Your task to perform on an android device: Go to ESPN.com Image 0: 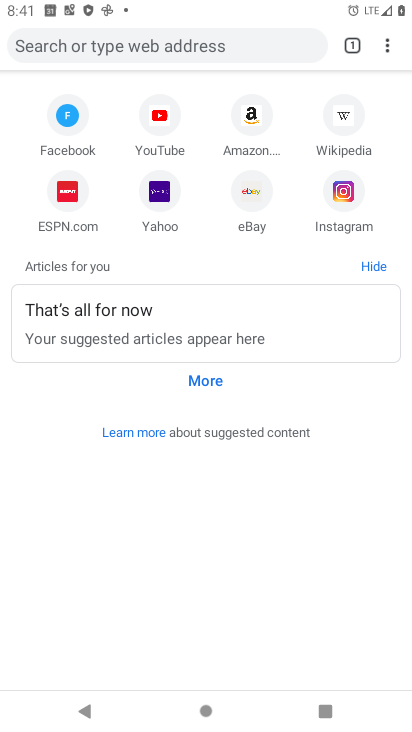
Step 0: press home button
Your task to perform on an android device: Go to ESPN.com Image 1: 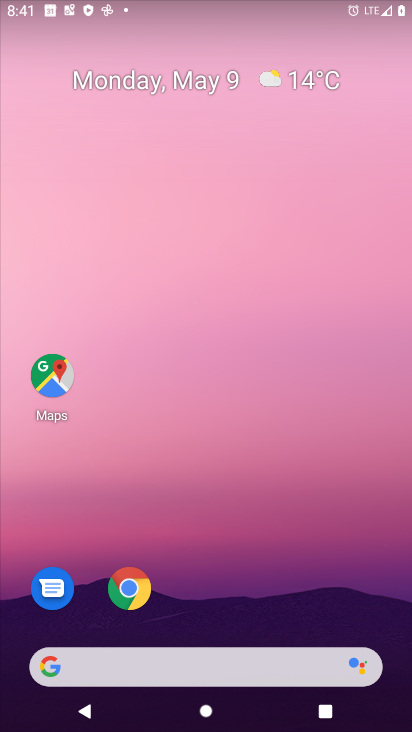
Step 1: drag from (352, 593) to (268, 72)
Your task to perform on an android device: Go to ESPN.com Image 2: 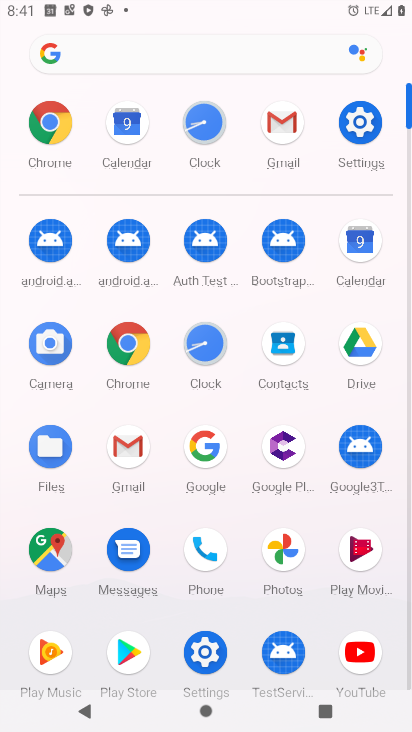
Step 2: click (133, 349)
Your task to perform on an android device: Go to ESPN.com Image 3: 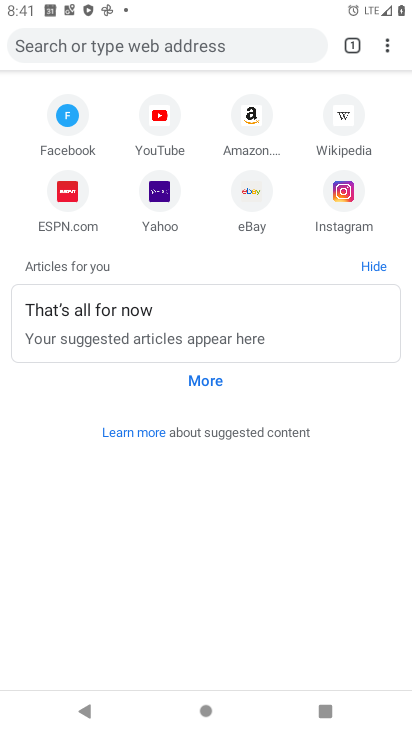
Step 3: click (70, 189)
Your task to perform on an android device: Go to ESPN.com Image 4: 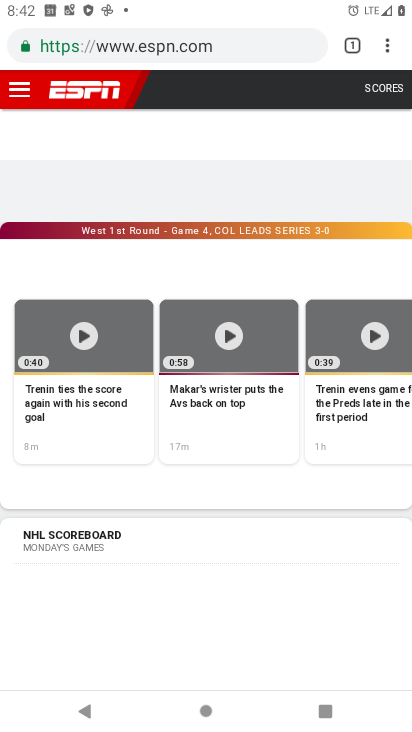
Step 4: task complete